Your task to perform on an android device: change the clock display to show seconds Image 0: 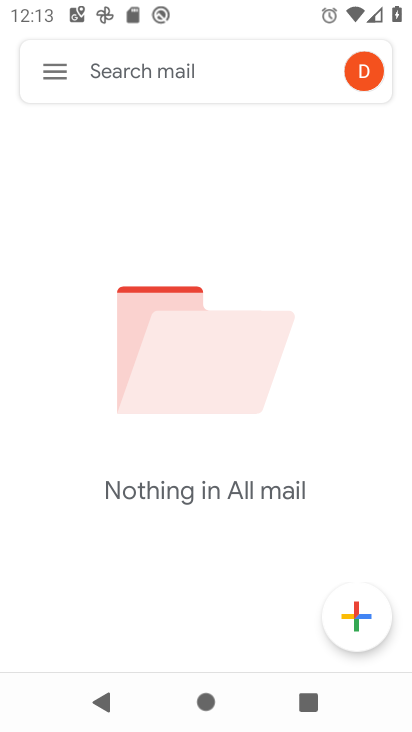
Step 0: press home button
Your task to perform on an android device: change the clock display to show seconds Image 1: 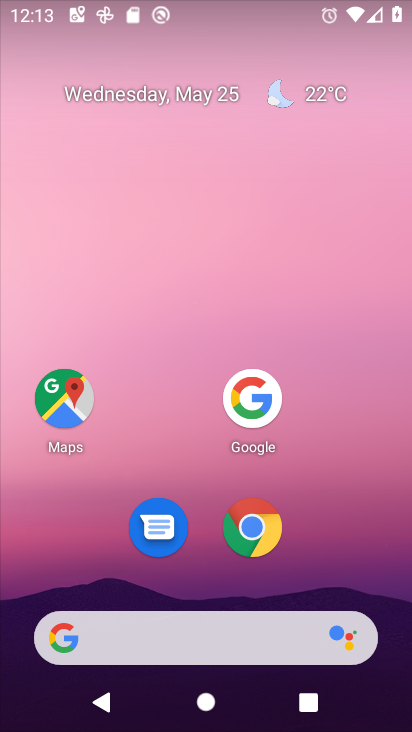
Step 1: drag from (191, 641) to (319, 132)
Your task to perform on an android device: change the clock display to show seconds Image 2: 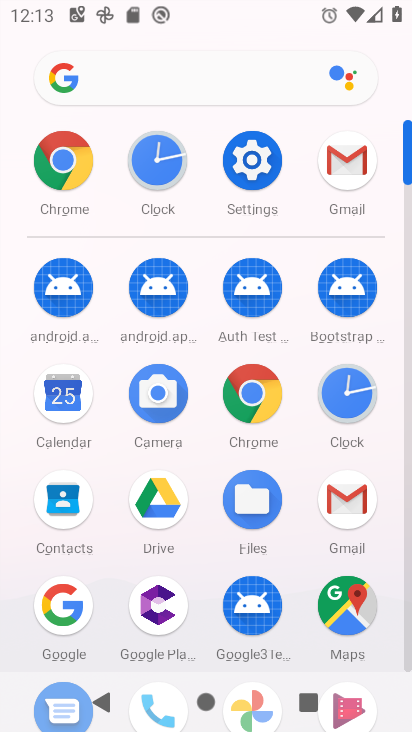
Step 2: click (344, 397)
Your task to perform on an android device: change the clock display to show seconds Image 3: 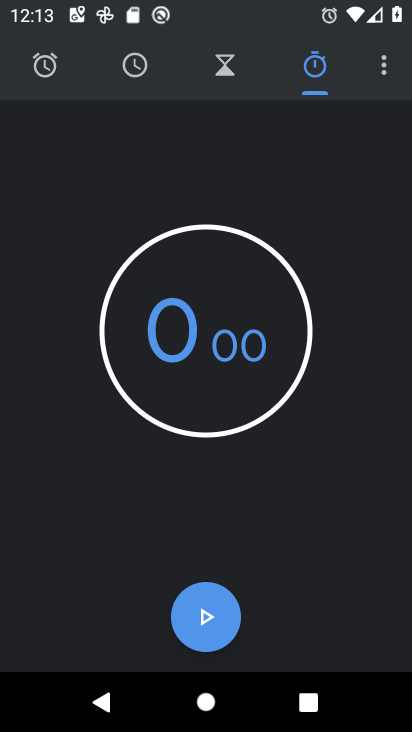
Step 3: click (382, 66)
Your task to perform on an android device: change the clock display to show seconds Image 4: 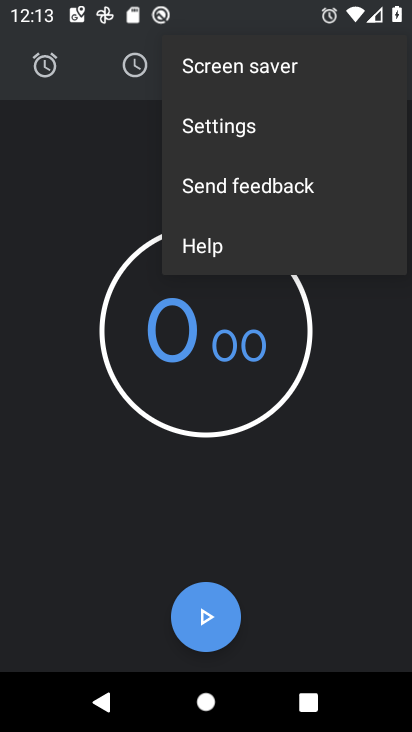
Step 4: click (252, 122)
Your task to perform on an android device: change the clock display to show seconds Image 5: 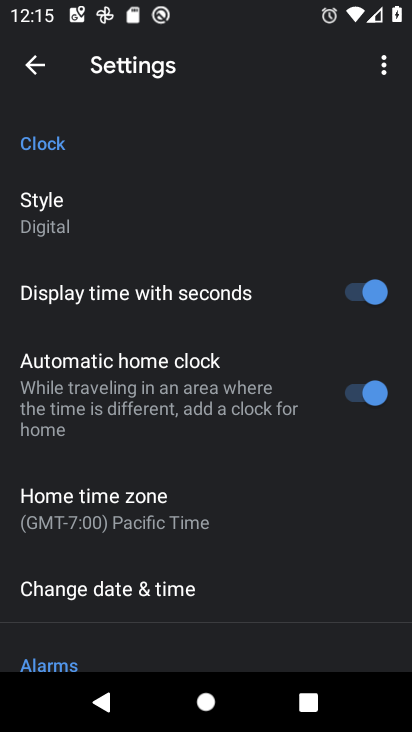
Step 5: task complete